Your task to perform on an android device: toggle airplane mode Image 0: 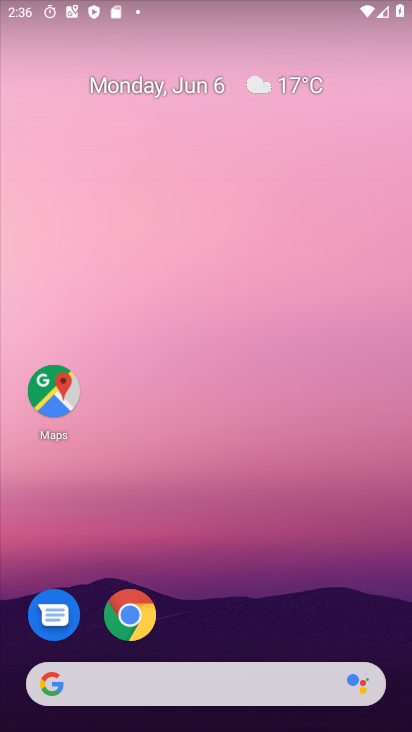
Step 0: drag from (202, 628) to (253, 53)
Your task to perform on an android device: toggle airplane mode Image 1: 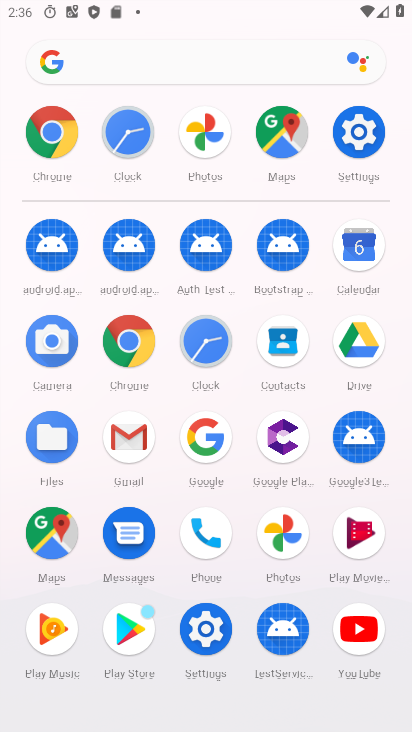
Step 1: click (347, 131)
Your task to perform on an android device: toggle airplane mode Image 2: 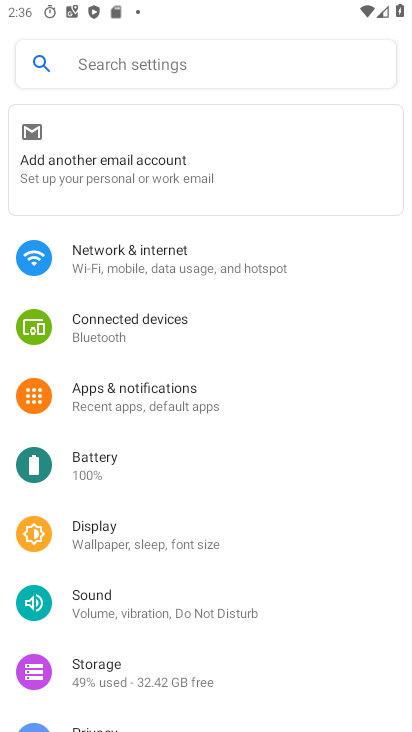
Step 2: click (154, 262)
Your task to perform on an android device: toggle airplane mode Image 3: 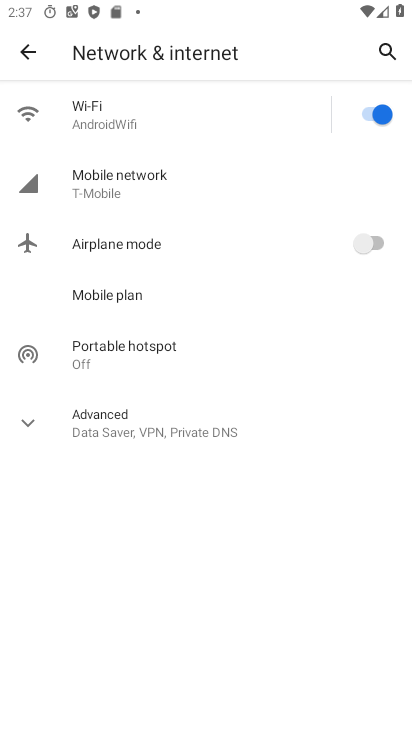
Step 3: click (143, 246)
Your task to perform on an android device: toggle airplane mode Image 4: 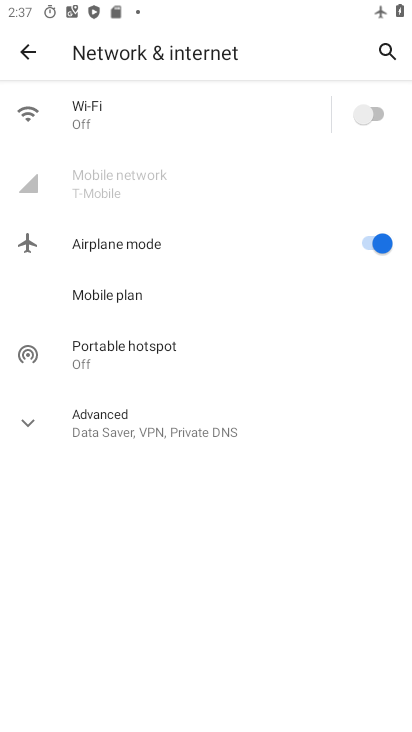
Step 4: task complete